Your task to perform on an android device: snooze an email in the gmail app Image 0: 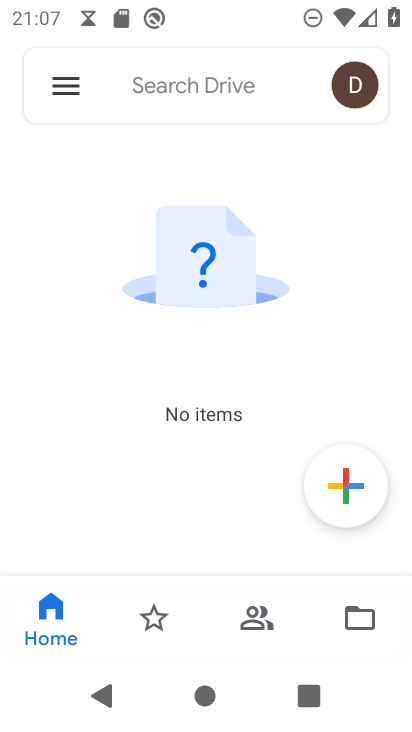
Step 0: press home button
Your task to perform on an android device: snooze an email in the gmail app Image 1: 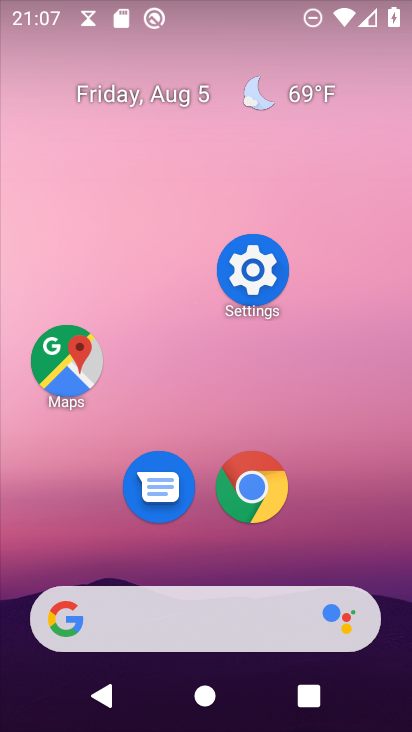
Step 1: drag from (166, 616) to (259, 151)
Your task to perform on an android device: snooze an email in the gmail app Image 2: 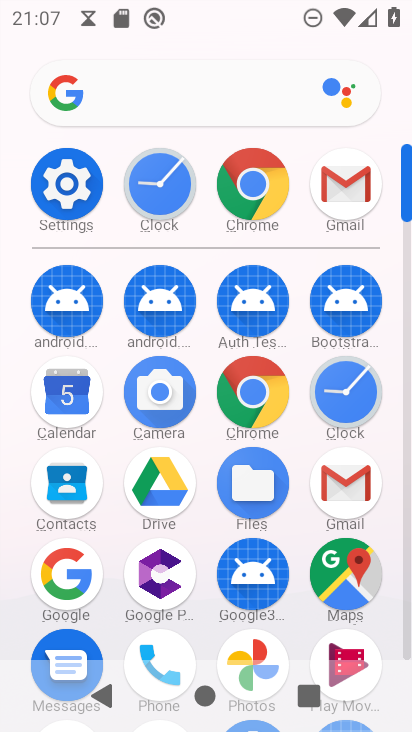
Step 2: click (352, 194)
Your task to perform on an android device: snooze an email in the gmail app Image 3: 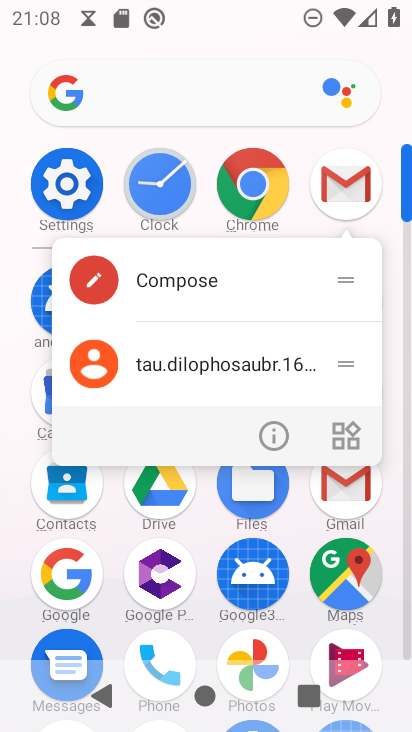
Step 3: click (351, 197)
Your task to perform on an android device: snooze an email in the gmail app Image 4: 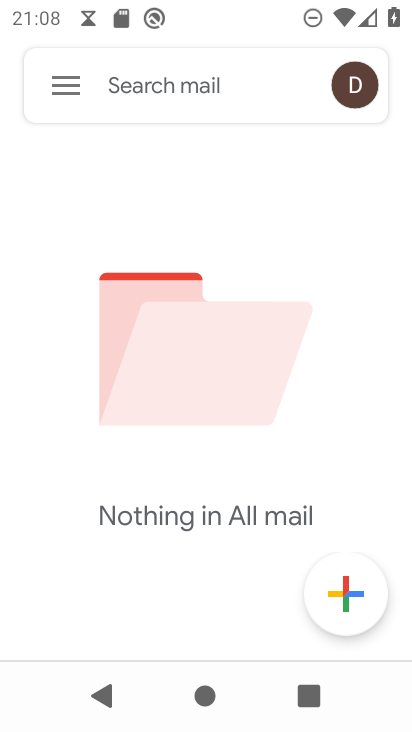
Step 4: task complete